Your task to perform on an android device: check storage Image 0: 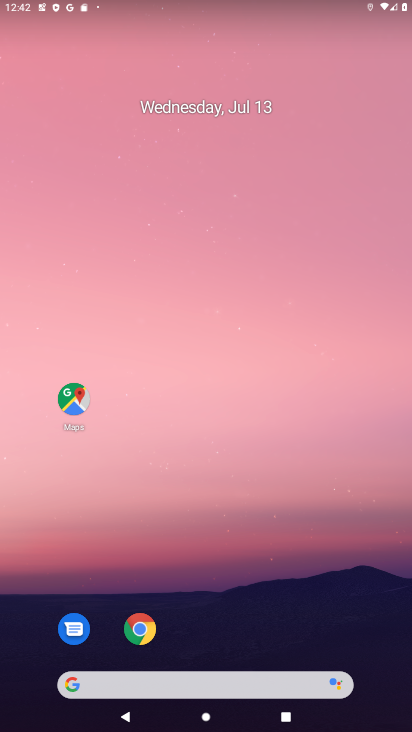
Step 0: drag from (215, 611) to (238, 223)
Your task to perform on an android device: check storage Image 1: 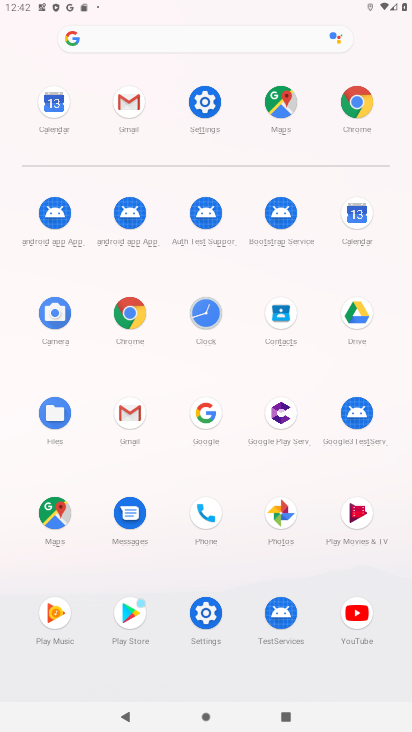
Step 1: click (201, 76)
Your task to perform on an android device: check storage Image 2: 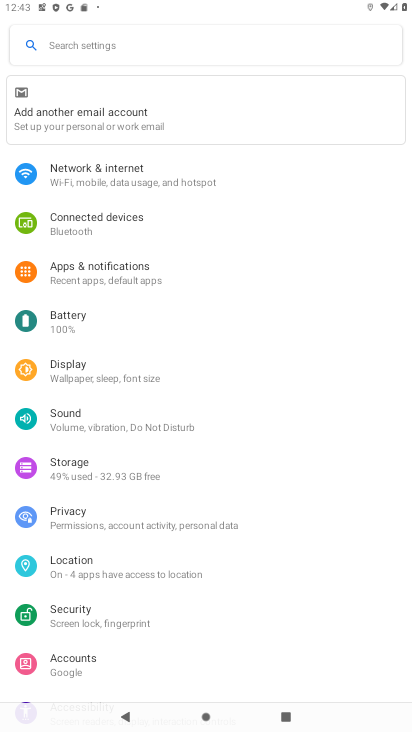
Step 2: click (62, 474)
Your task to perform on an android device: check storage Image 3: 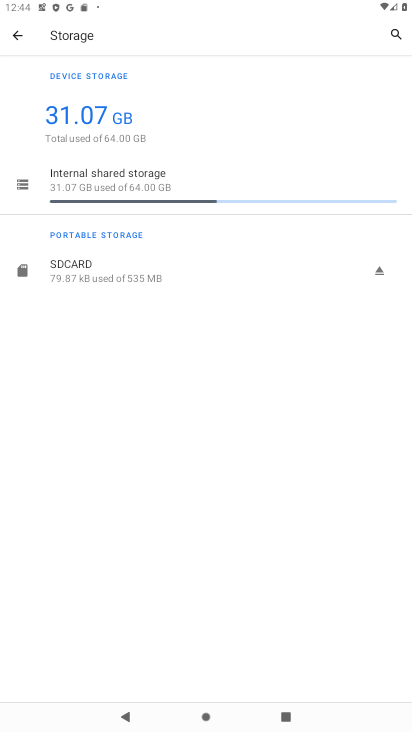
Step 3: task complete